Your task to perform on an android device: Toggle the flashlight Image 0: 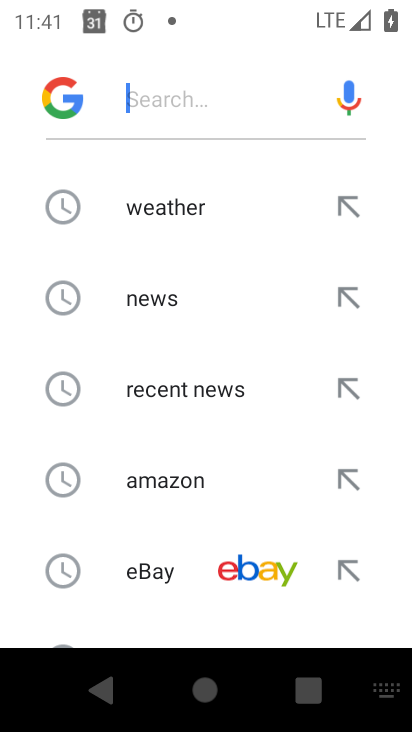
Step 0: press home button
Your task to perform on an android device: Toggle the flashlight Image 1: 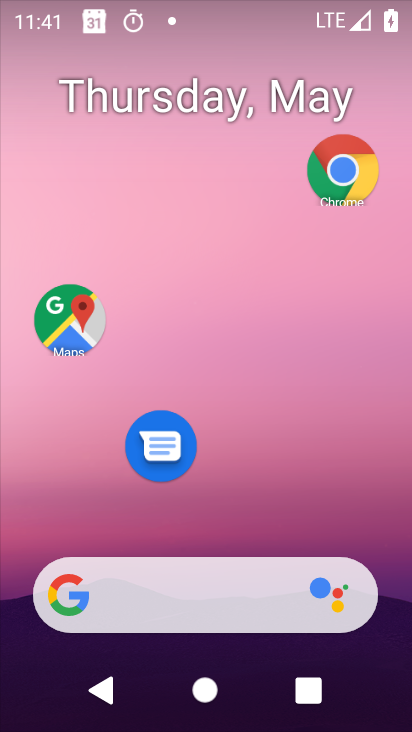
Step 1: drag from (339, 568) to (367, 1)
Your task to perform on an android device: Toggle the flashlight Image 2: 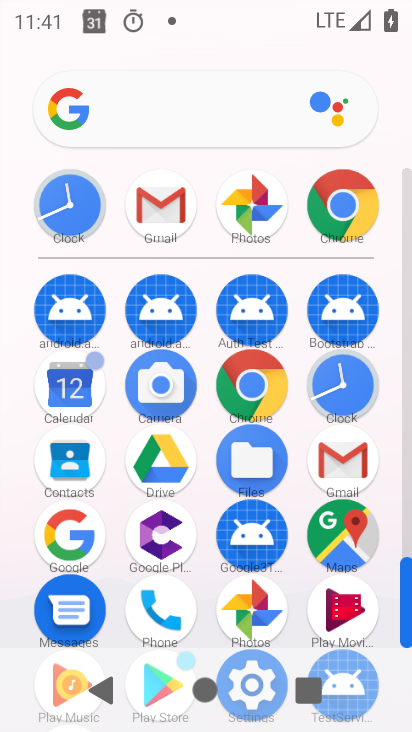
Step 2: drag from (298, 611) to (293, 418)
Your task to perform on an android device: Toggle the flashlight Image 3: 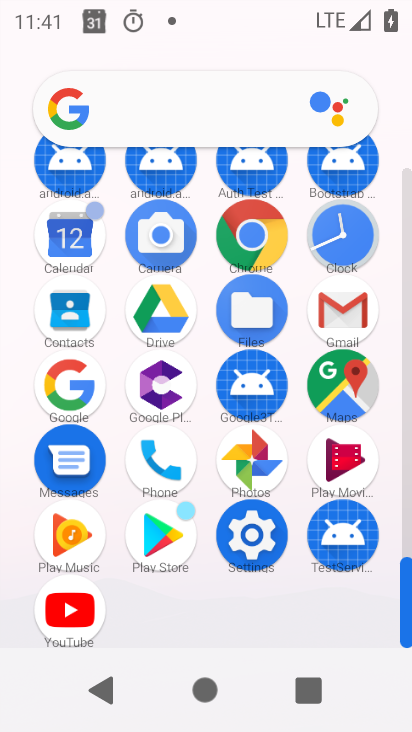
Step 3: click (248, 541)
Your task to perform on an android device: Toggle the flashlight Image 4: 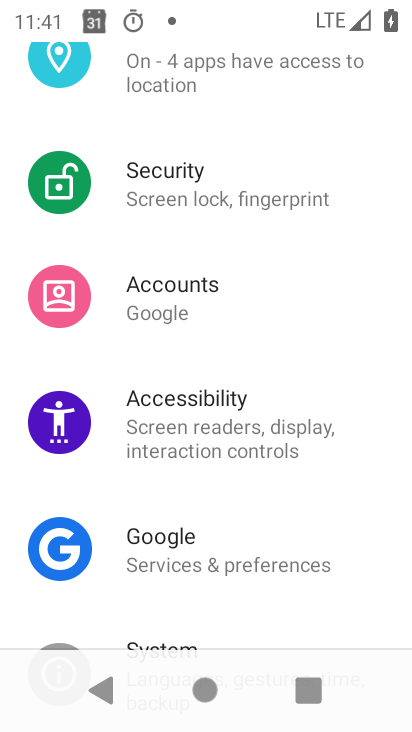
Step 4: task complete